Your task to perform on an android device: install app "Expedia: Hotels, Flights & Car" Image 0: 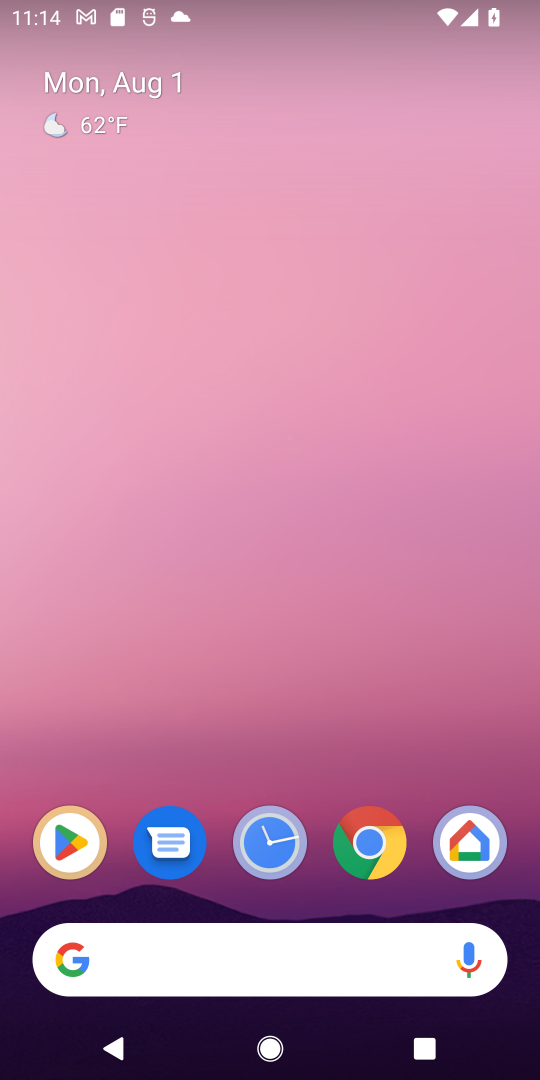
Step 0: click (64, 864)
Your task to perform on an android device: install app "Expedia: Hotels, Flights & Car" Image 1: 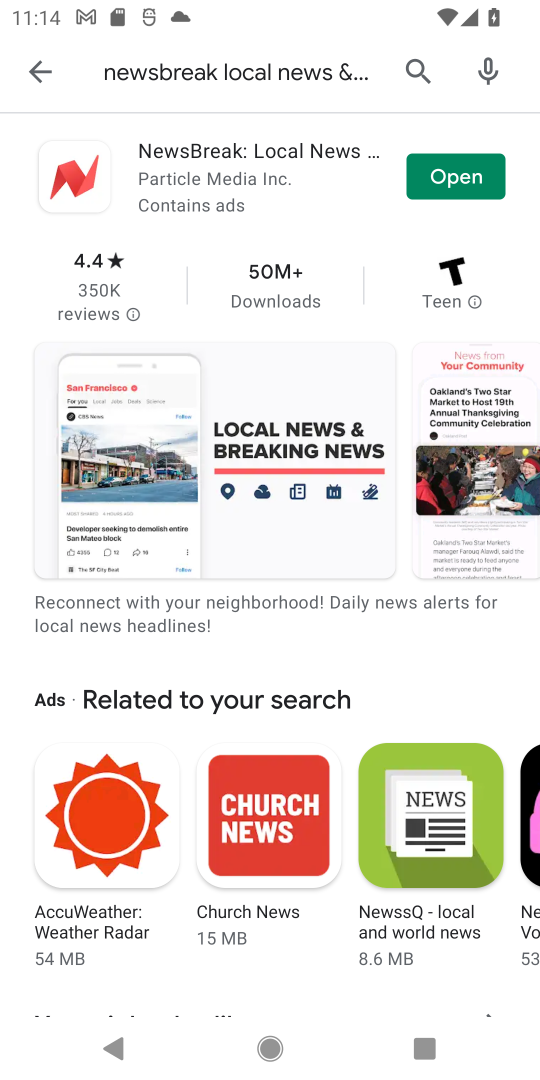
Step 1: click (404, 75)
Your task to perform on an android device: install app "Expedia: Hotels, Flights & Car" Image 2: 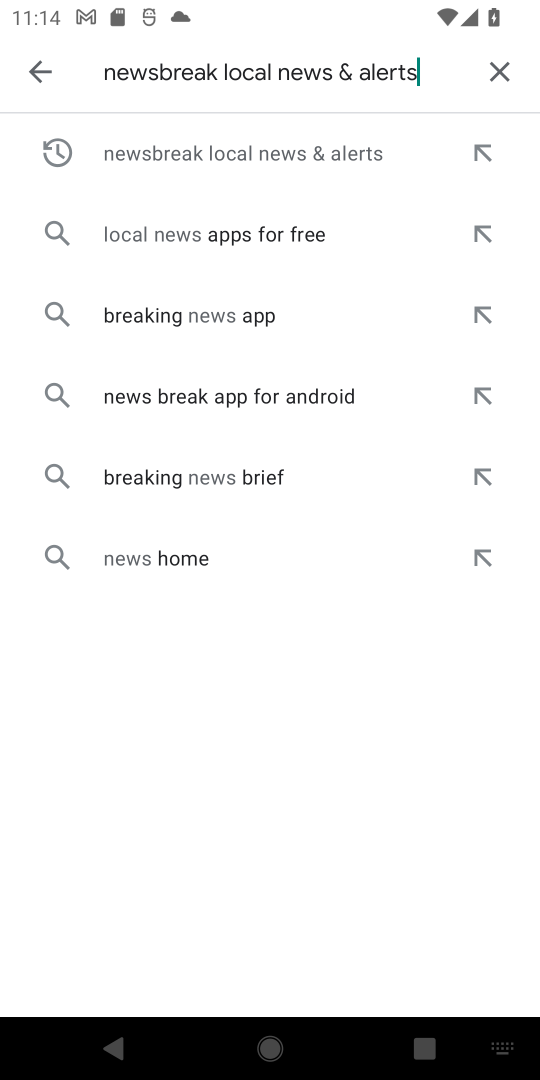
Step 2: click (486, 71)
Your task to perform on an android device: install app "Expedia: Hotels, Flights & Car" Image 3: 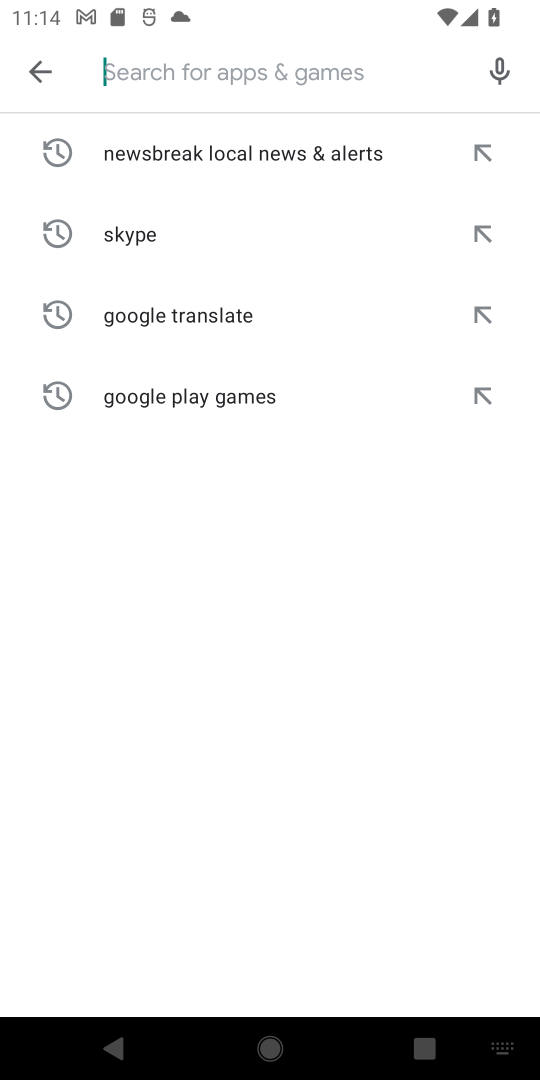
Step 3: click (177, 76)
Your task to perform on an android device: install app "Expedia: Hotels, Flights & Car" Image 4: 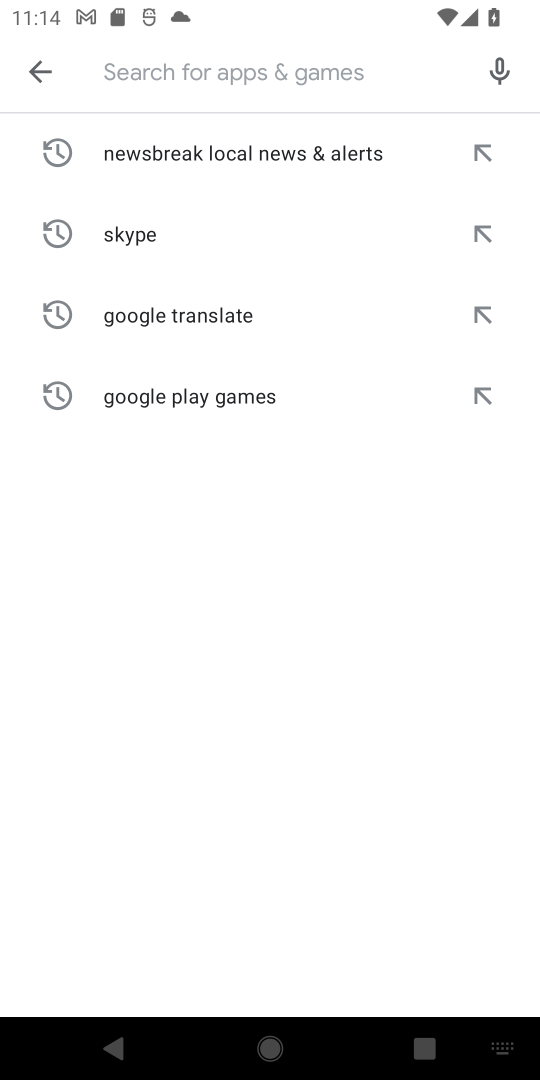
Step 4: type "Expedia: Hotels, Flights & Car"
Your task to perform on an android device: install app "Expedia: Hotels, Flights & Car" Image 5: 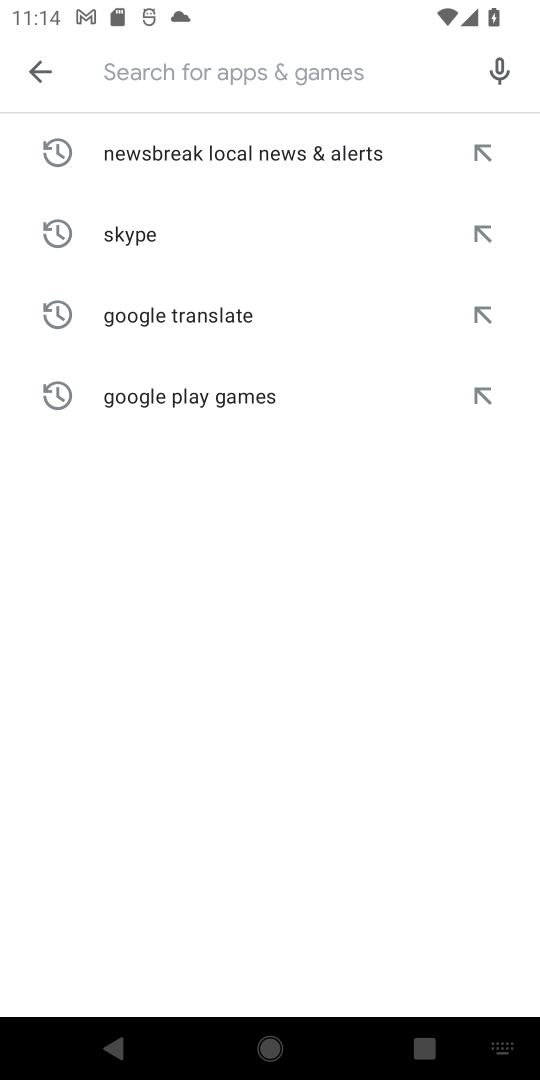
Step 5: click (195, 561)
Your task to perform on an android device: install app "Expedia: Hotels, Flights & Car" Image 6: 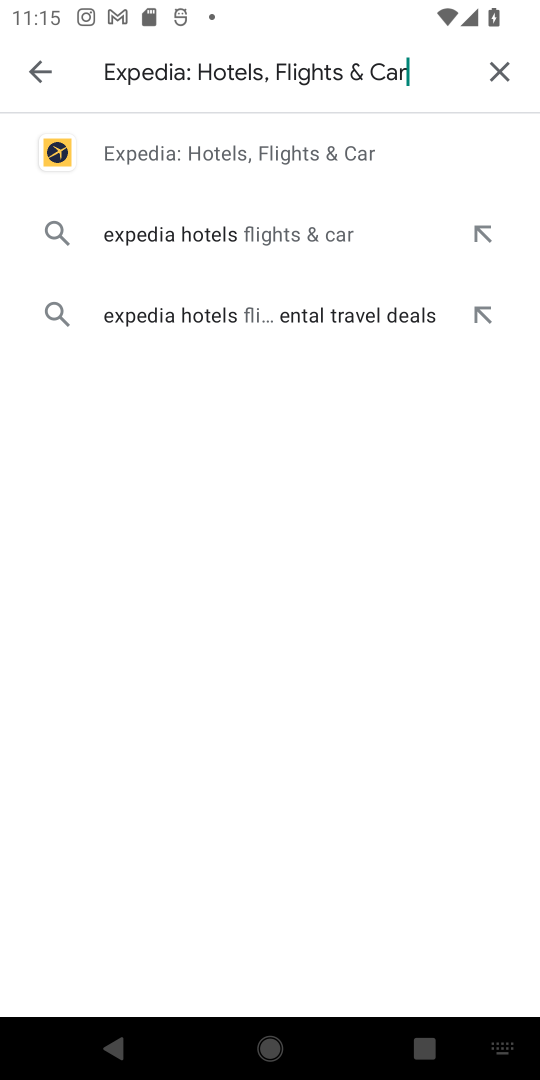
Step 6: click (241, 138)
Your task to perform on an android device: install app "Expedia: Hotels, Flights & Car" Image 7: 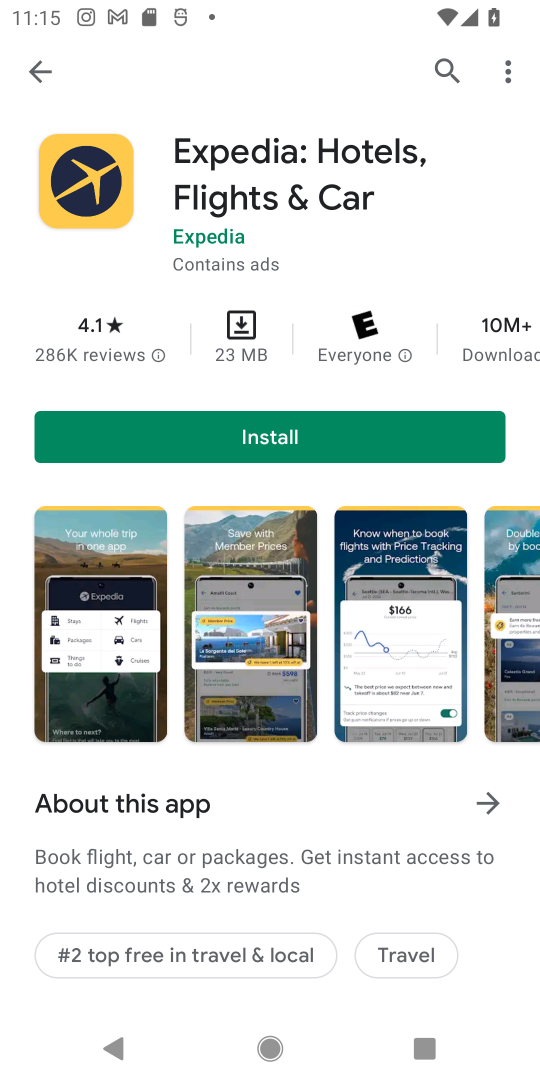
Step 7: click (242, 447)
Your task to perform on an android device: install app "Expedia: Hotels, Flights & Car" Image 8: 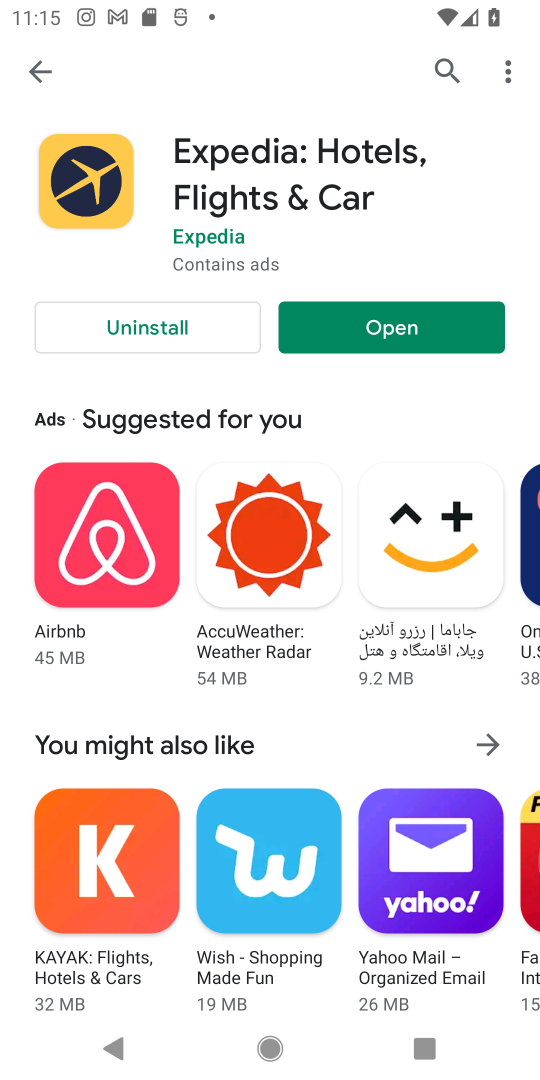
Step 8: task complete